Your task to perform on an android device: snooze an email in the gmail app Image 0: 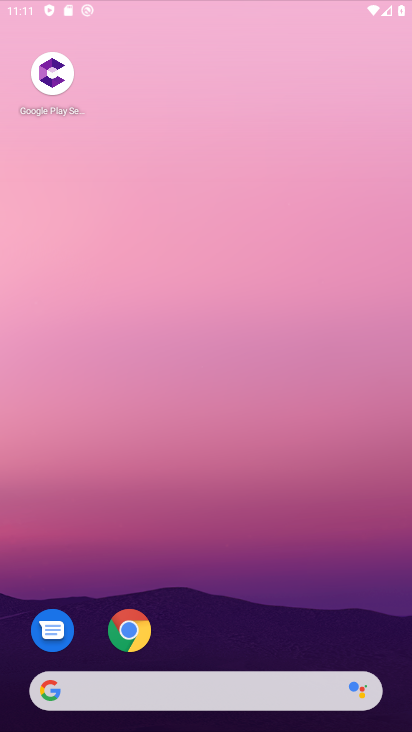
Step 0: click (335, 4)
Your task to perform on an android device: snooze an email in the gmail app Image 1: 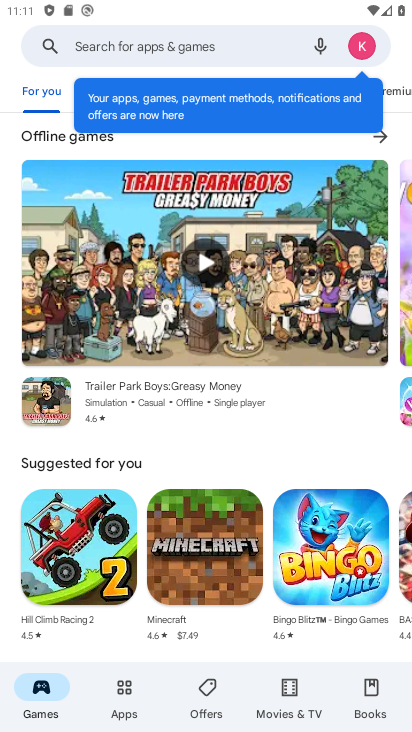
Step 1: press home button
Your task to perform on an android device: snooze an email in the gmail app Image 2: 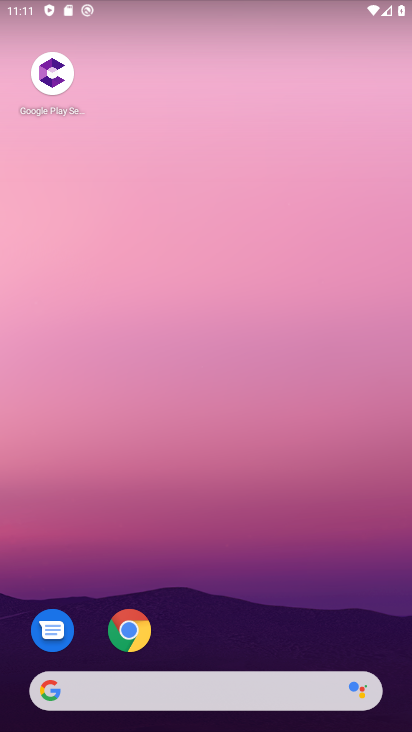
Step 2: drag from (255, 695) to (355, 99)
Your task to perform on an android device: snooze an email in the gmail app Image 3: 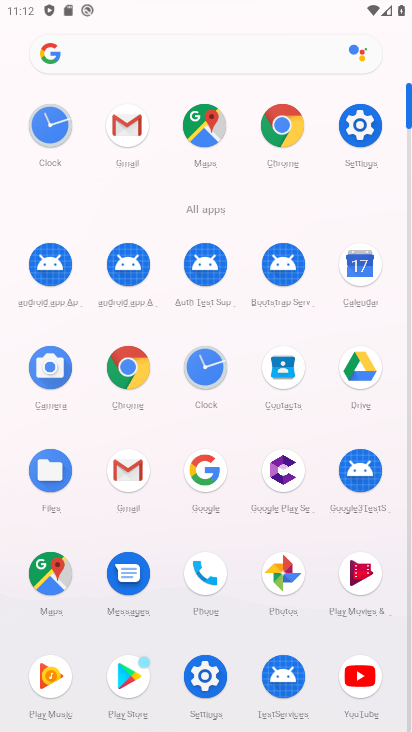
Step 3: click (121, 136)
Your task to perform on an android device: snooze an email in the gmail app Image 4: 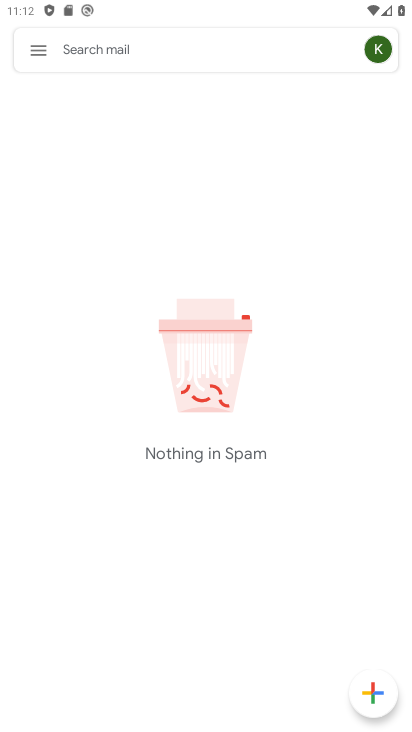
Step 4: click (44, 45)
Your task to perform on an android device: snooze an email in the gmail app Image 5: 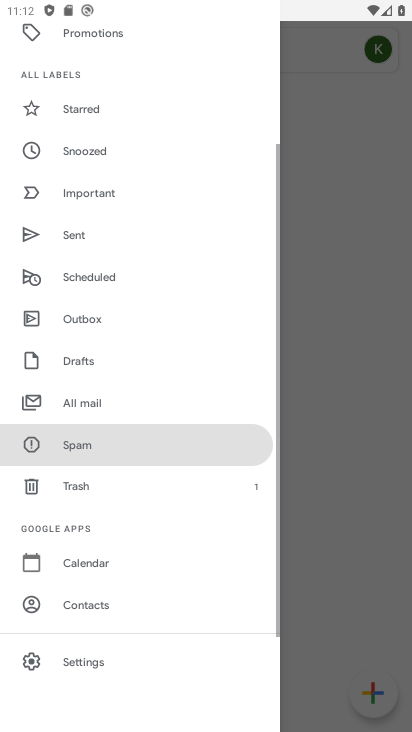
Step 5: drag from (85, 104) to (52, 651)
Your task to perform on an android device: snooze an email in the gmail app Image 6: 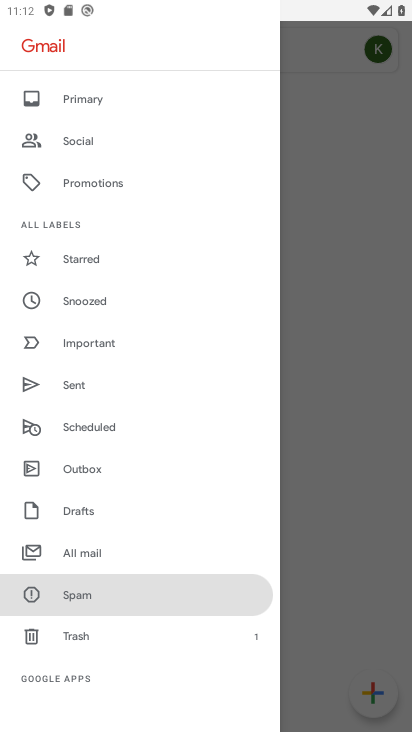
Step 6: click (88, 558)
Your task to perform on an android device: snooze an email in the gmail app Image 7: 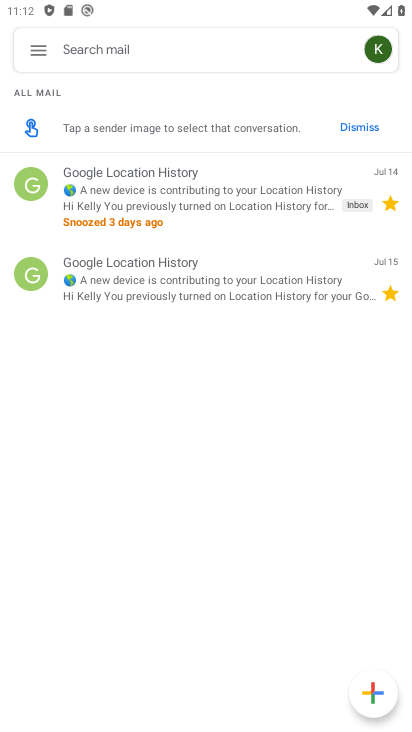
Step 7: click (131, 289)
Your task to perform on an android device: snooze an email in the gmail app Image 8: 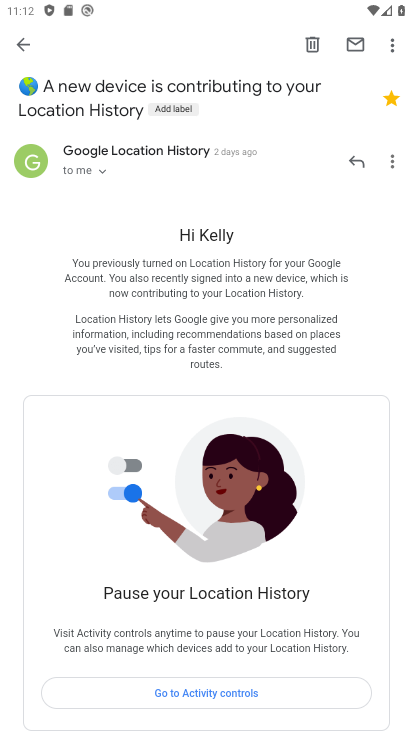
Step 8: click (408, 46)
Your task to perform on an android device: snooze an email in the gmail app Image 9: 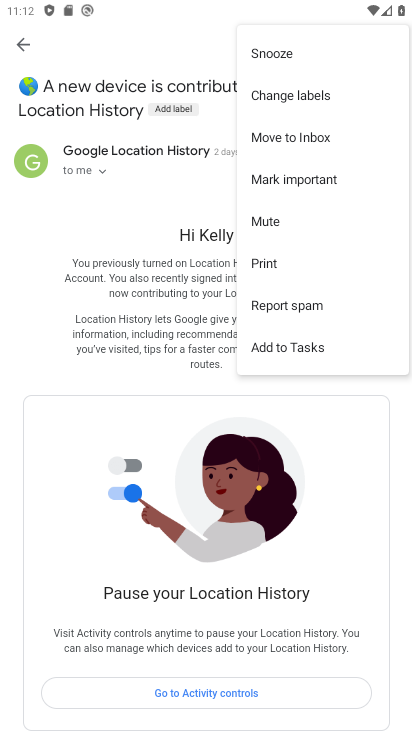
Step 9: click (299, 57)
Your task to perform on an android device: snooze an email in the gmail app Image 10: 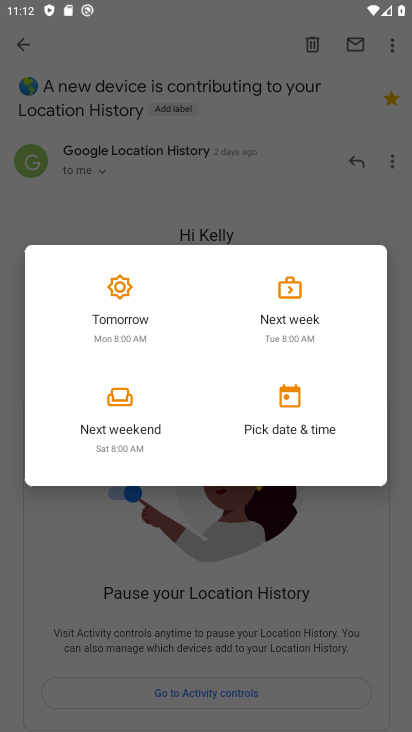
Step 10: click (118, 308)
Your task to perform on an android device: snooze an email in the gmail app Image 11: 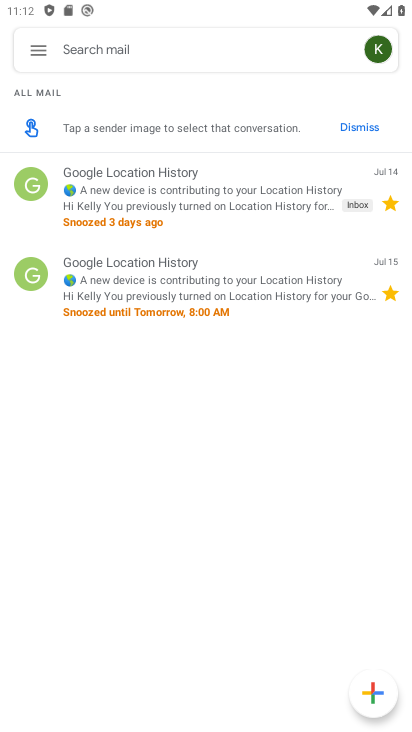
Step 11: task complete